Your task to perform on an android device: turn pop-ups on in chrome Image 0: 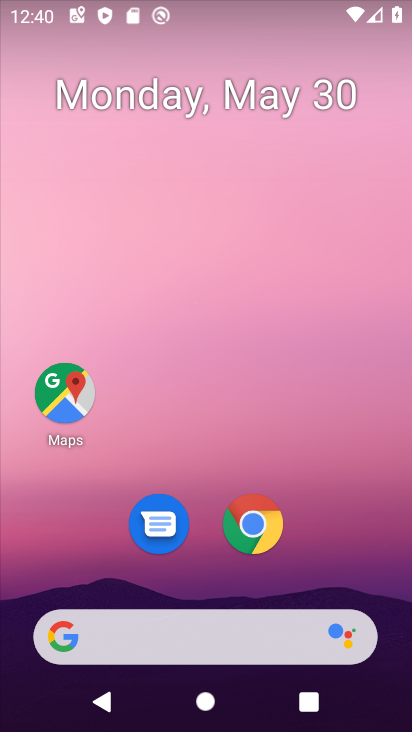
Step 0: click (255, 521)
Your task to perform on an android device: turn pop-ups on in chrome Image 1: 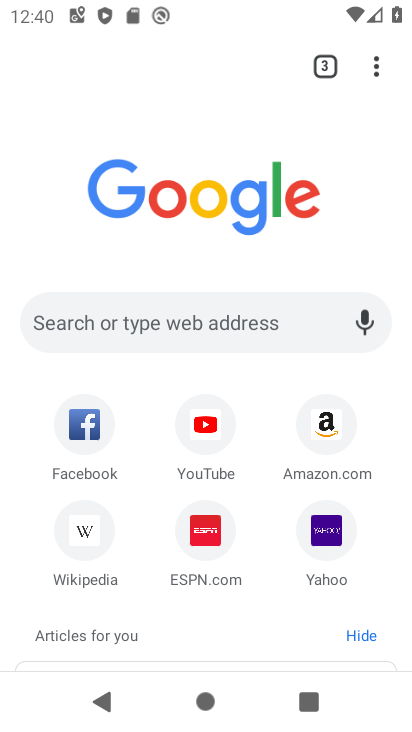
Step 1: click (375, 72)
Your task to perform on an android device: turn pop-ups on in chrome Image 2: 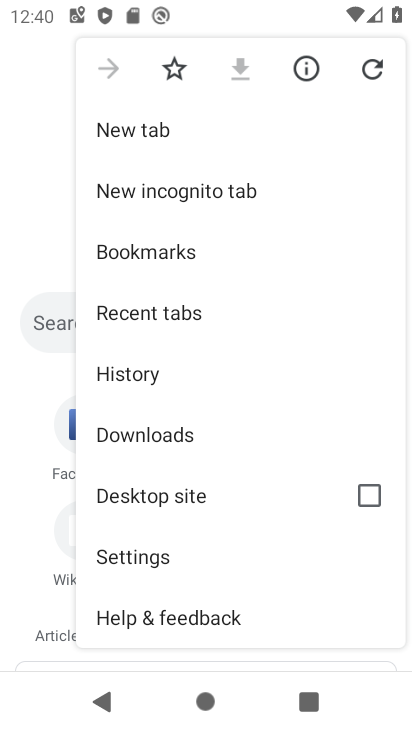
Step 2: click (217, 554)
Your task to perform on an android device: turn pop-ups on in chrome Image 3: 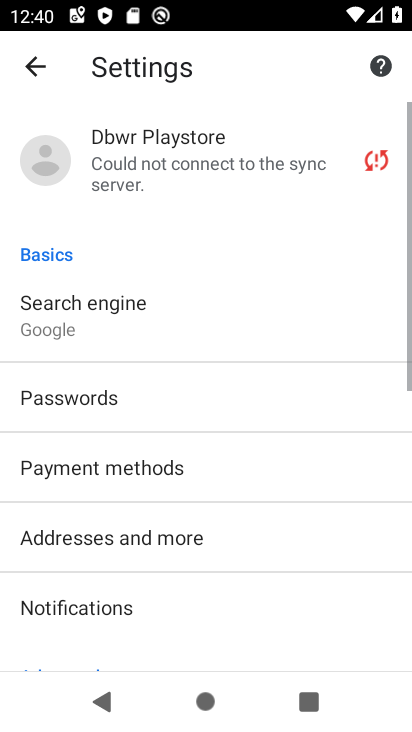
Step 3: drag from (230, 533) to (258, 274)
Your task to perform on an android device: turn pop-ups on in chrome Image 4: 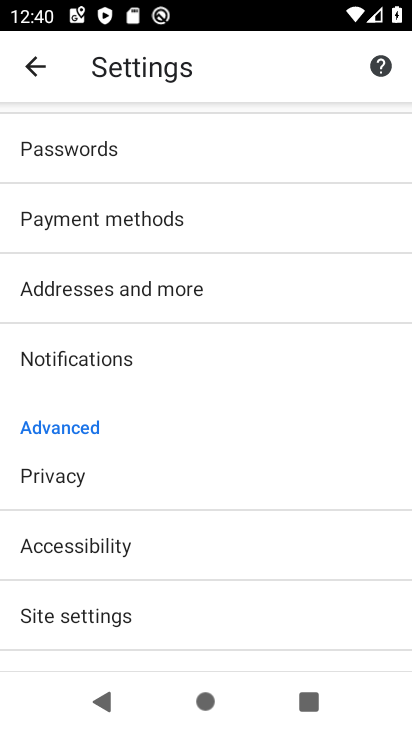
Step 4: click (198, 613)
Your task to perform on an android device: turn pop-ups on in chrome Image 5: 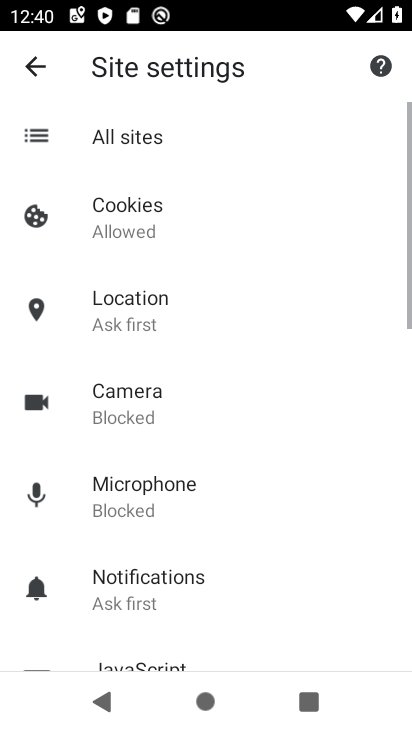
Step 5: drag from (230, 544) to (276, 277)
Your task to perform on an android device: turn pop-ups on in chrome Image 6: 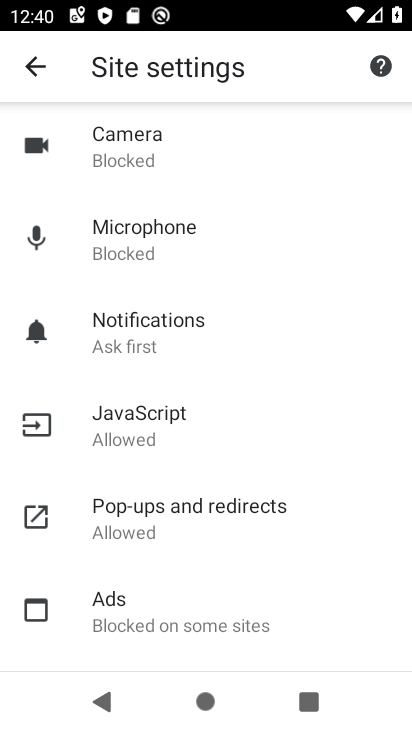
Step 6: click (231, 502)
Your task to perform on an android device: turn pop-ups on in chrome Image 7: 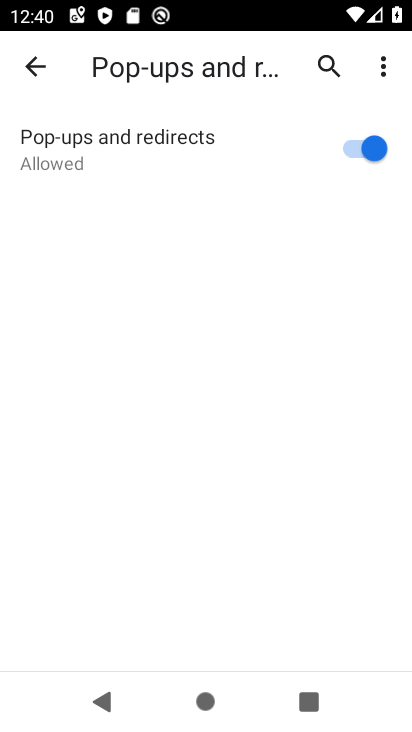
Step 7: task complete